Your task to perform on an android device: open a new tab in the chrome app Image 0: 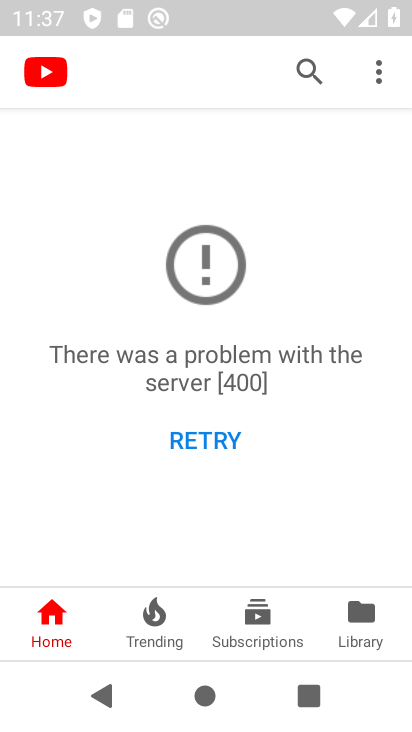
Step 0: press home button
Your task to perform on an android device: open a new tab in the chrome app Image 1: 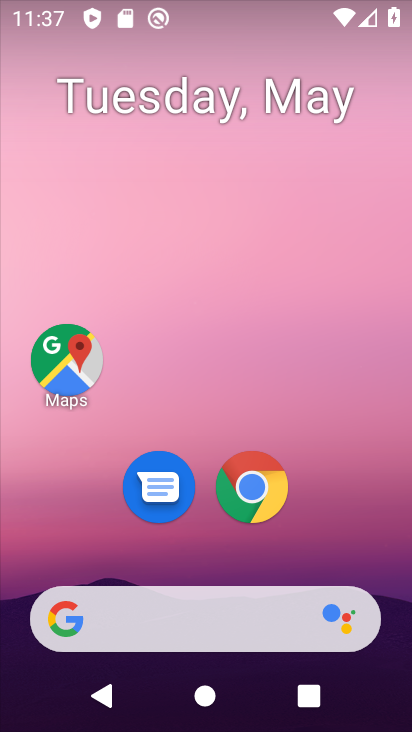
Step 1: click (259, 488)
Your task to perform on an android device: open a new tab in the chrome app Image 2: 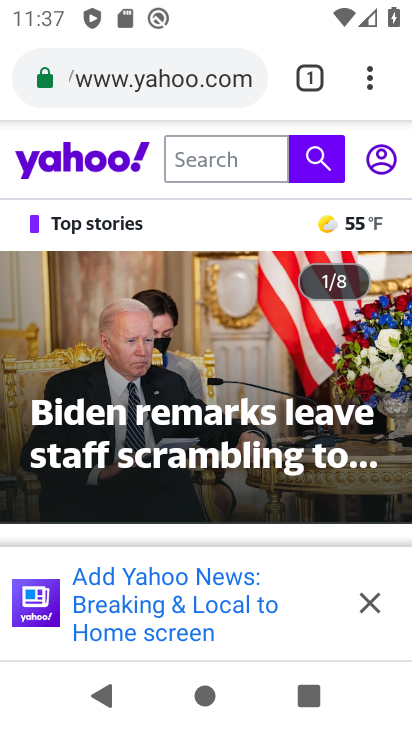
Step 2: click (371, 90)
Your task to perform on an android device: open a new tab in the chrome app Image 3: 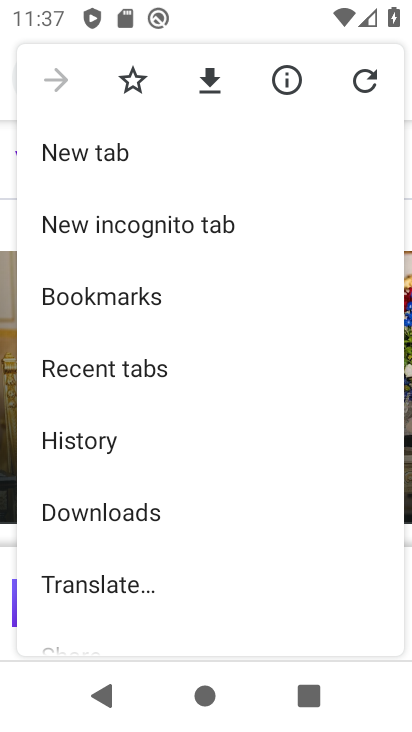
Step 3: click (175, 160)
Your task to perform on an android device: open a new tab in the chrome app Image 4: 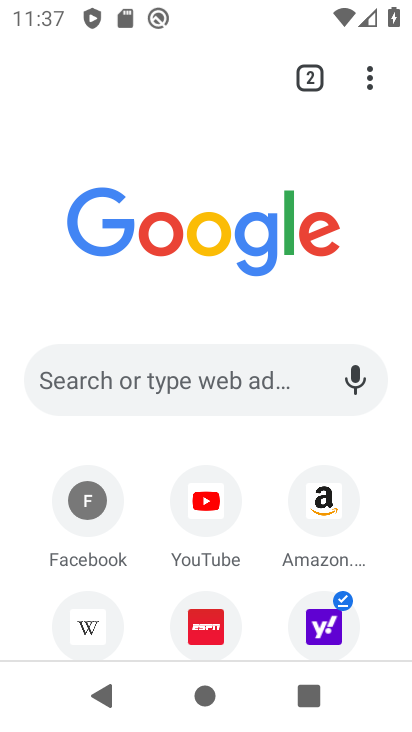
Step 4: task complete